Your task to perform on an android device: What is the news today? Image 0: 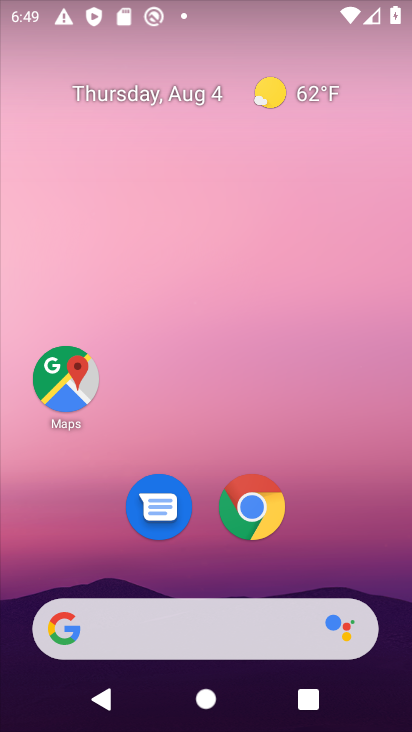
Step 0: drag from (398, 602) to (206, 15)
Your task to perform on an android device: What is the news today? Image 1: 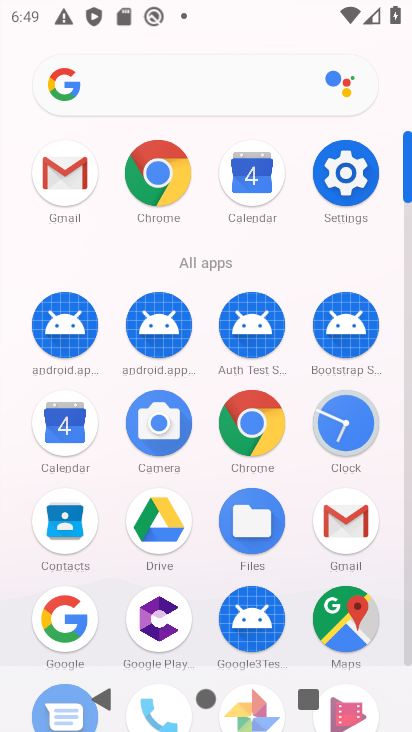
Step 1: click (67, 612)
Your task to perform on an android device: What is the news today? Image 2: 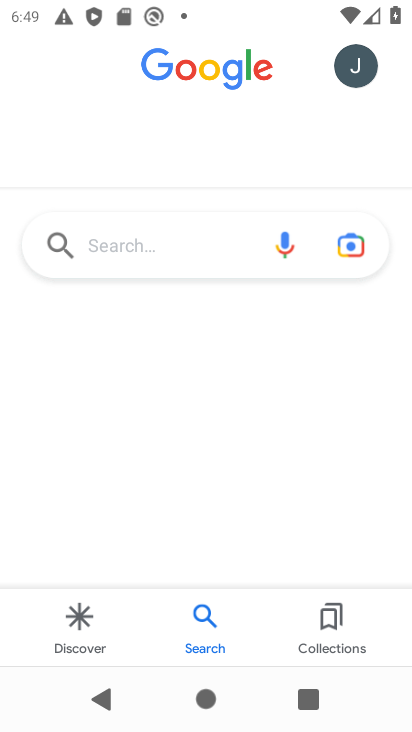
Step 2: click (113, 249)
Your task to perform on an android device: What is the news today? Image 3: 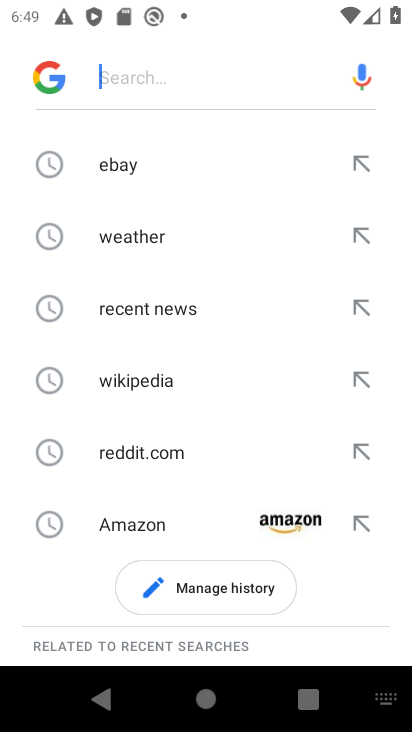
Step 3: type "What is the news today?"
Your task to perform on an android device: What is the news today? Image 4: 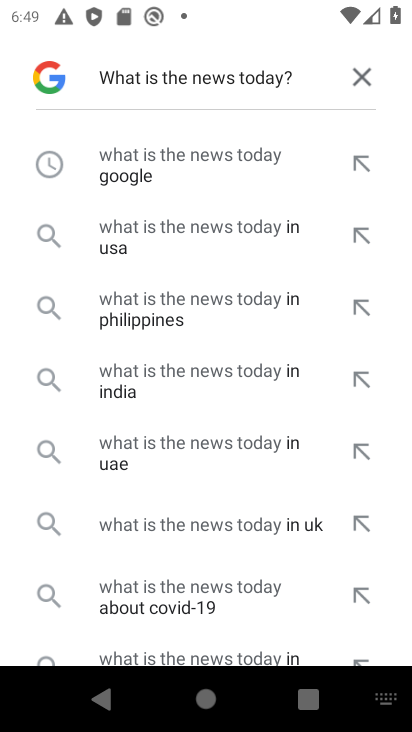
Step 4: task complete